Your task to perform on an android device: open sync settings in chrome Image 0: 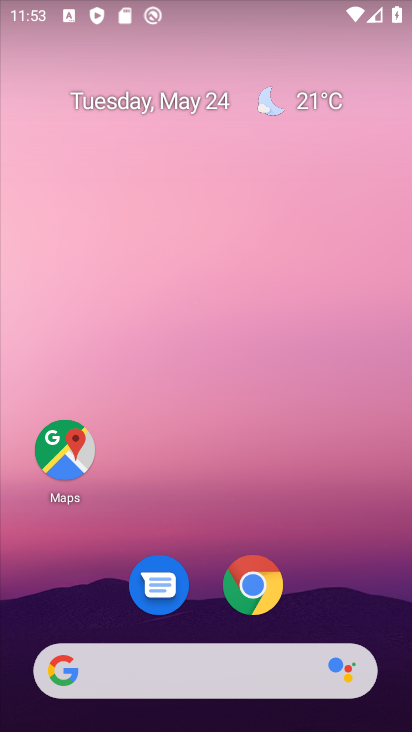
Step 0: click (261, 595)
Your task to perform on an android device: open sync settings in chrome Image 1: 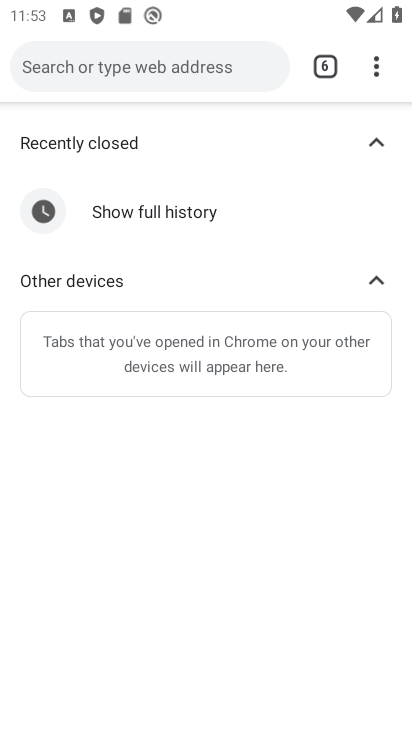
Step 1: click (370, 58)
Your task to perform on an android device: open sync settings in chrome Image 2: 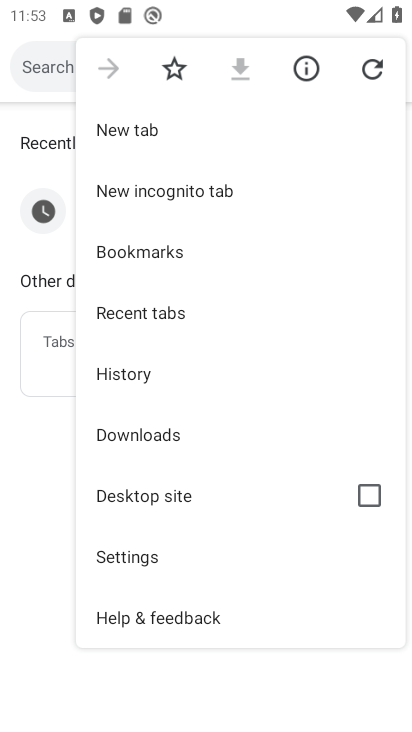
Step 2: click (165, 547)
Your task to perform on an android device: open sync settings in chrome Image 3: 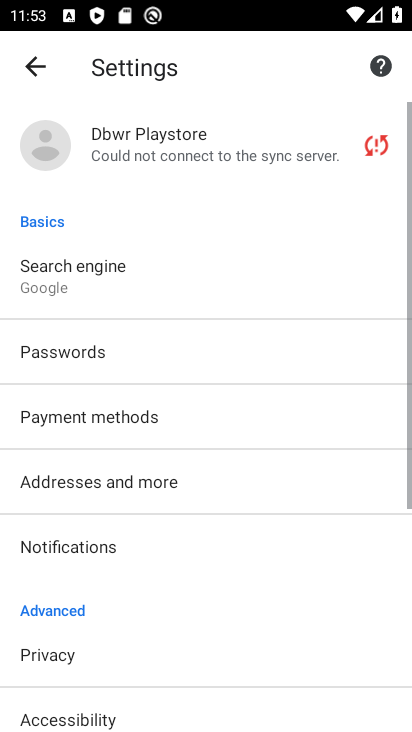
Step 3: click (252, 138)
Your task to perform on an android device: open sync settings in chrome Image 4: 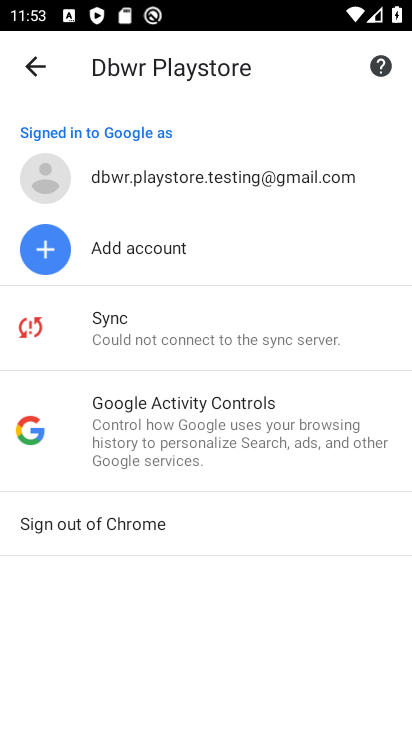
Step 4: click (192, 315)
Your task to perform on an android device: open sync settings in chrome Image 5: 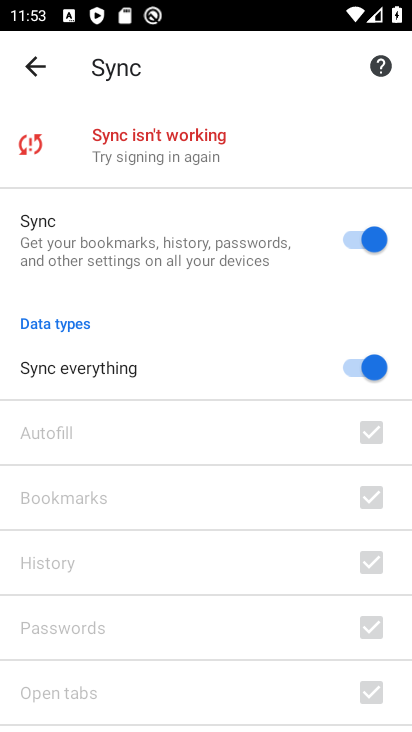
Step 5: task complete